Your task to perform on an android device: Open Reddit.com Image 0: 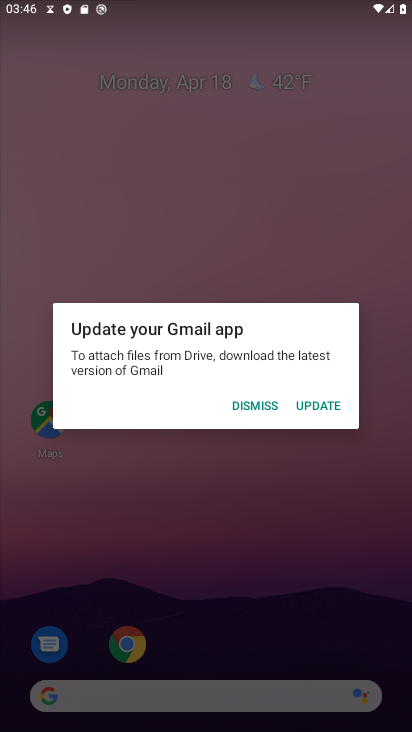
Step 0: press home button
Your task to perform on an android device: Open Reddit.com Image 1: 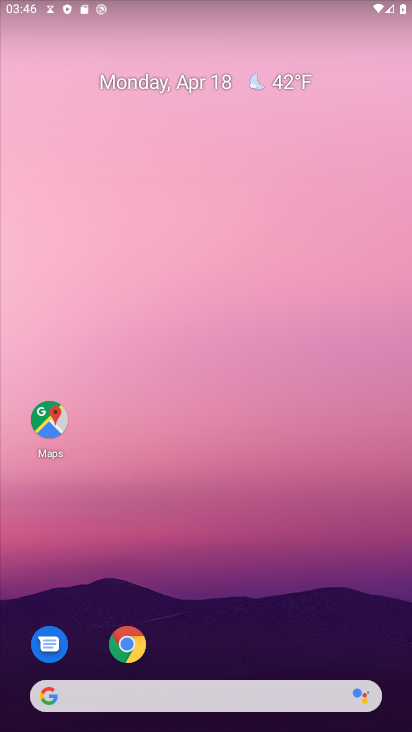
Step 1: click (215, 693)
Your task to perform on an android device: Open Reddit.com Image 2: 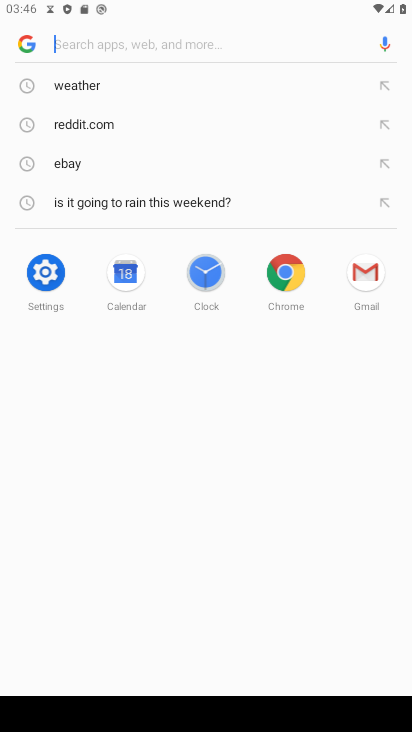
Step 2: type "Reddit.com"
Your task to perform on an android device: Open Reddit.com Image 3: 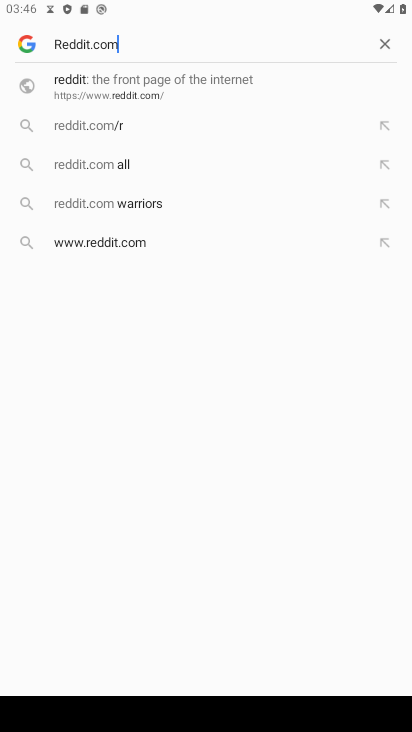
Step 3: click (134, 99)
Your task to perform on an android device: Open Reddit.com Image 4: 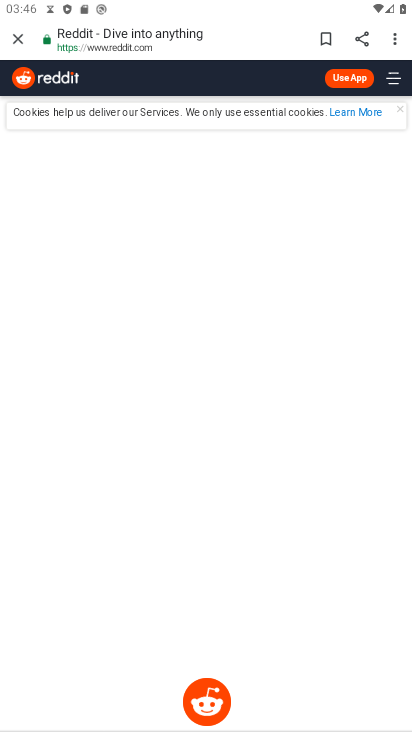
Step 4: task complete